Your task to perform on an android device: Open calendar and show me the first week of next month Image 0: 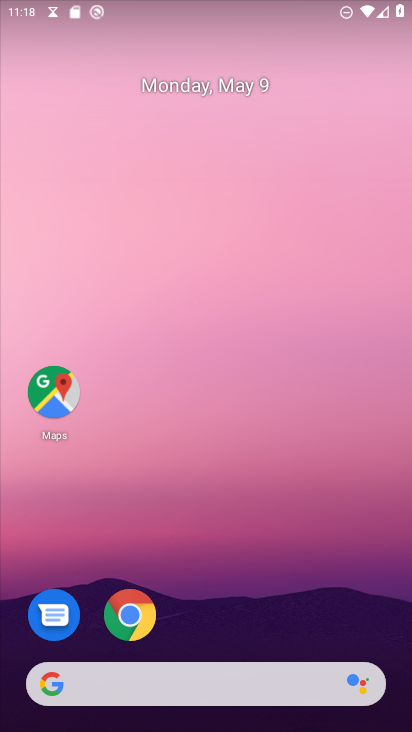
Step 0: drag from (216, 725) to (213, 229)
Your task to perform on an android device: Open calendar and show me the first week of next month Image 1: 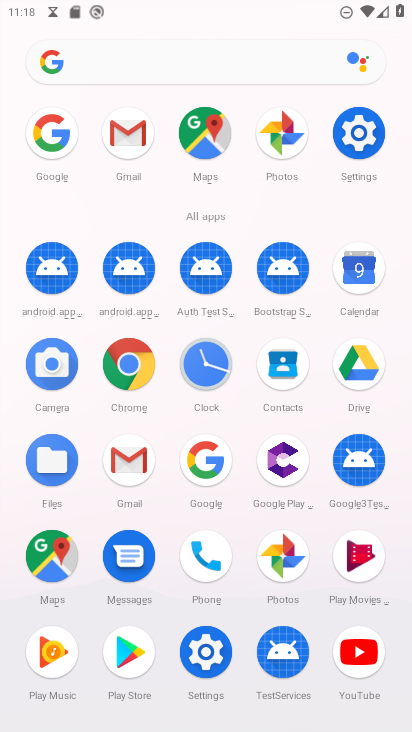
Step 1: click (354, 278)
Your task to perform on an android device: Open calendar and show me the first week of next month Image 2: 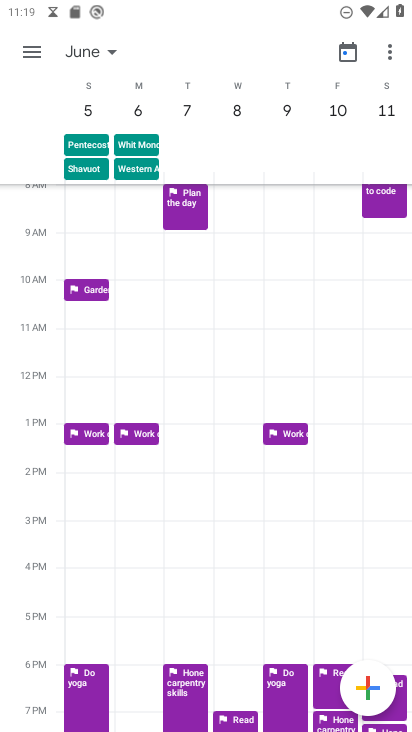
Step 2: task complete